Your task to perform on an android device: manage bookmarks in the chrome app Image 0: 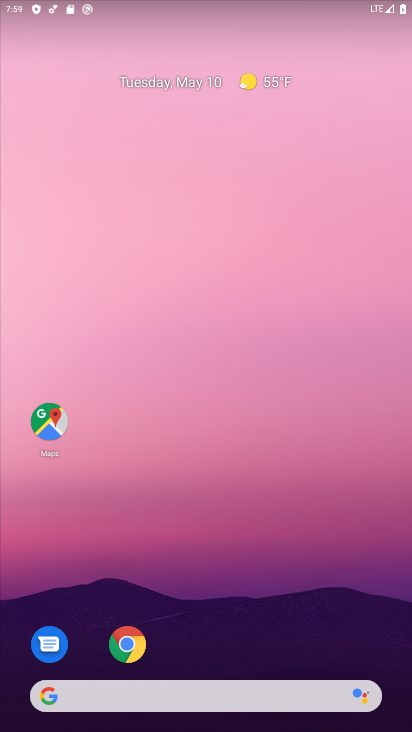
Step 0: drag from (197, 660) to (211, 252)
Your task to perform on an android device: manage bookmarks in the chrome app Image 1: 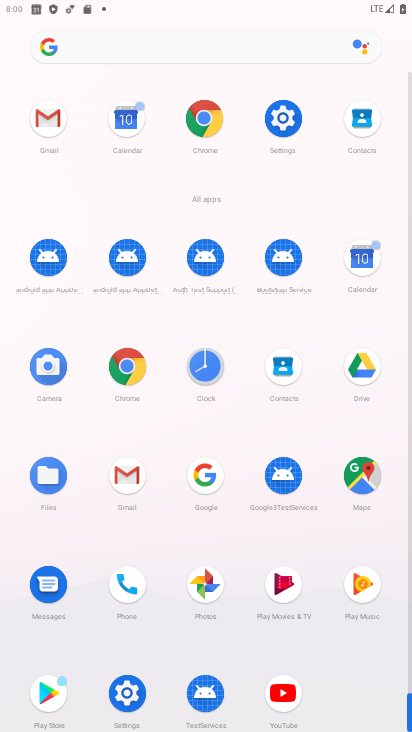
Step 1: click (208, 143)
Your task to perform on an android device: manage bookmarks in the chrome app Image 2: 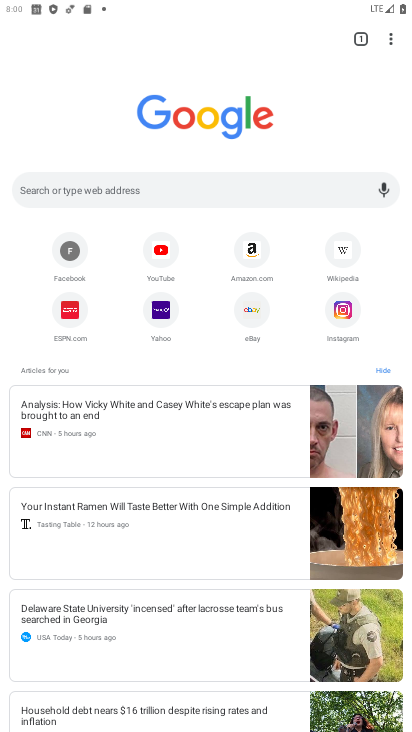
Step 2: click (390, 39)
Your task to perform on an android device: manage bookmarks in the chrome app Image 3: 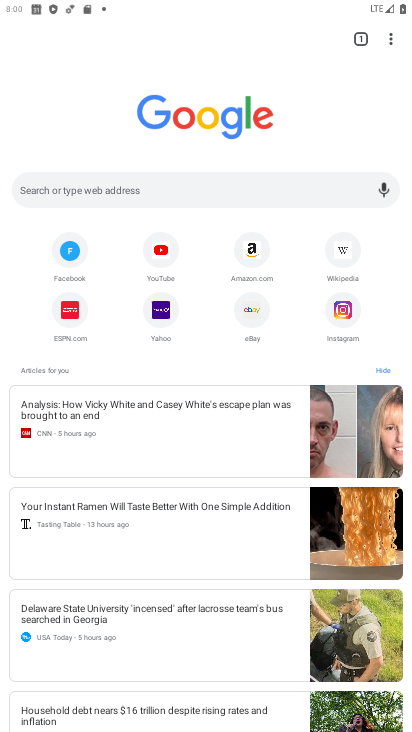
Step 3: click (389, 40)
Your task to perform on an android device: manage bookmarks in the chrome app Image 4: 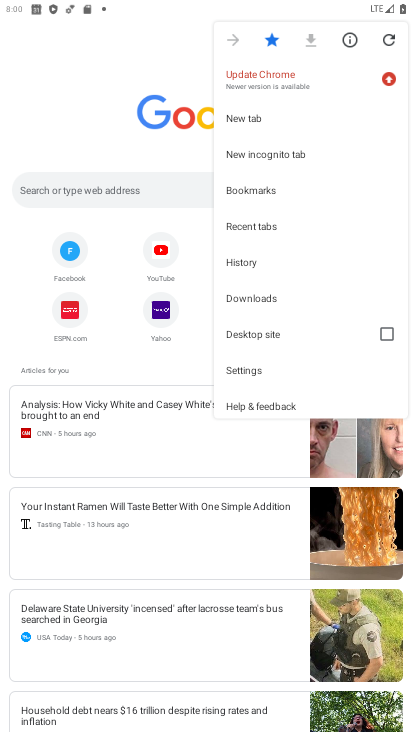
Step 4: click (278, 190)
Your task to perform on an android device: manage bookmarks in the chrome app Image 5: 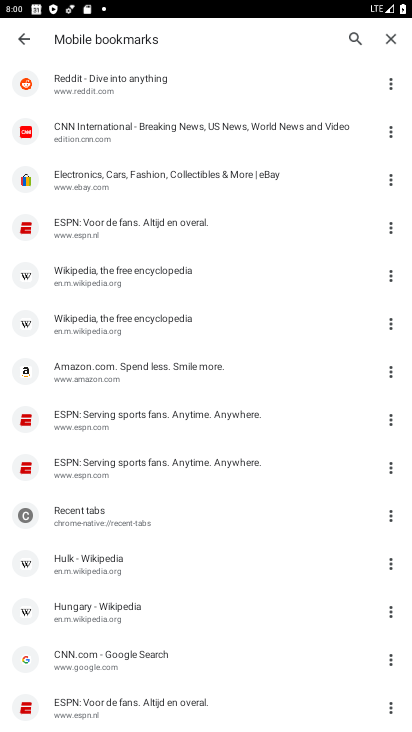
Step 5: task complete